Your task to perform on an android device: Go to battery settings Image 0: 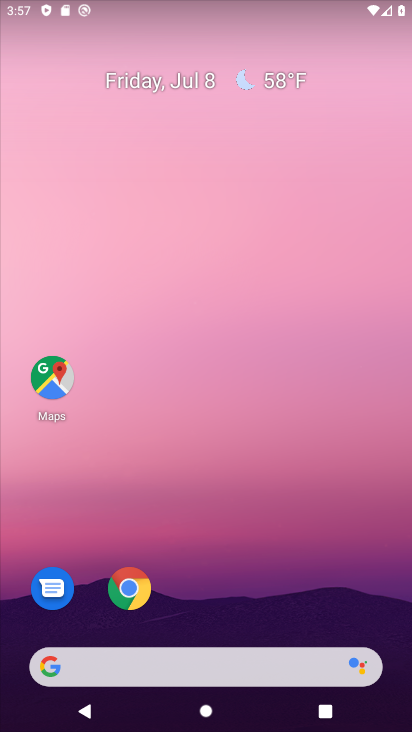
Step 0: drag from (227, 626) to (349, 82)
Your task to perform on an android device: Go to battery settings Image 1: 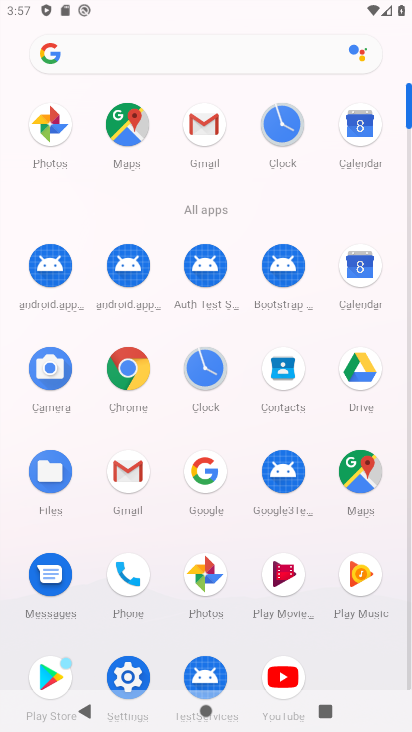
Step 1: click (120, 659)
Your task to perform on an android device: Go to battery settings Image 2: 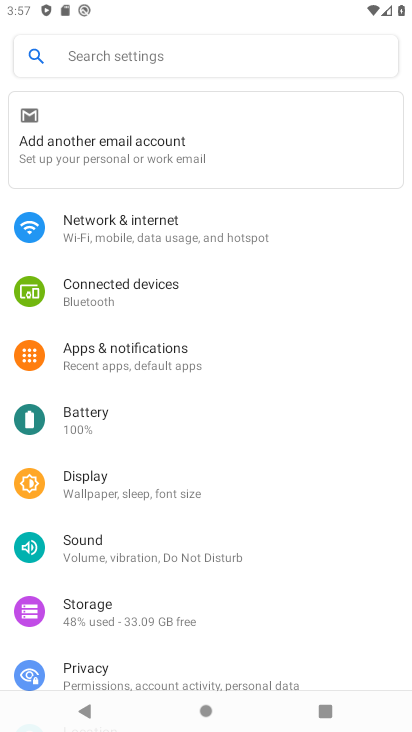
Step 2: drag from (130, 532) to (261, 155)
Your task to perform on an android device: Go to battery settings Image 3: 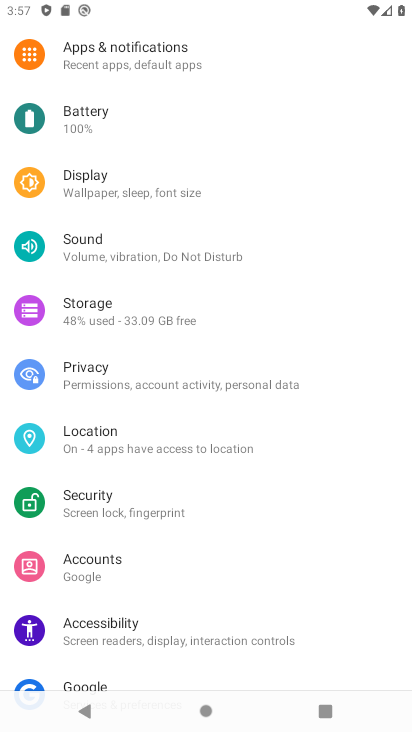
Step 3: click (112, 101)
Your task to perform on an android device: Go to battery settings Image 4: 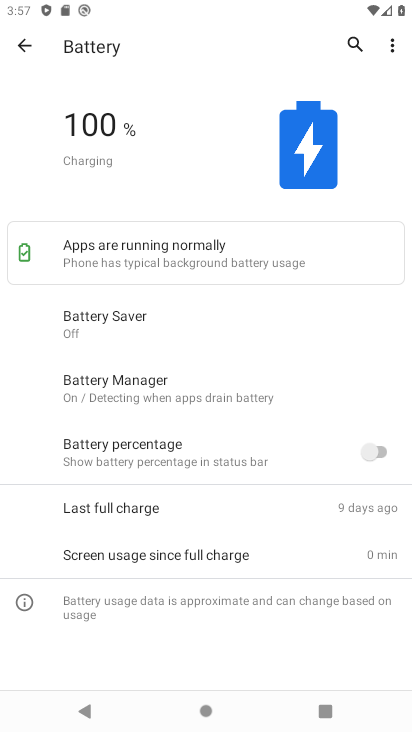
Step 4: task complete